Your task to perform on an android device: Open accessibility settings Image 0: 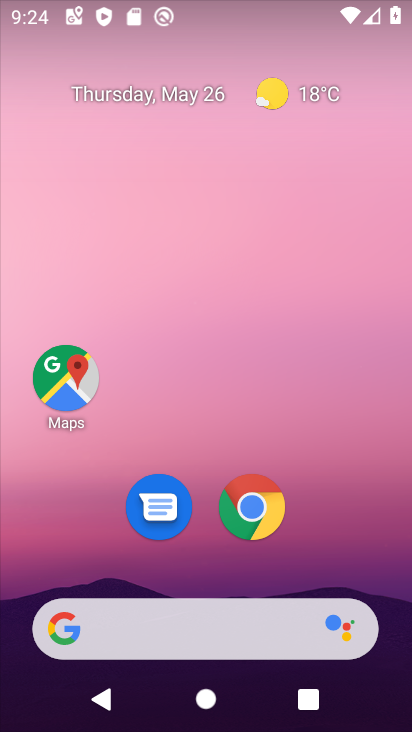
Step 0: press home button
Your task to perform on an android device: Open accessibility settings Image 1: 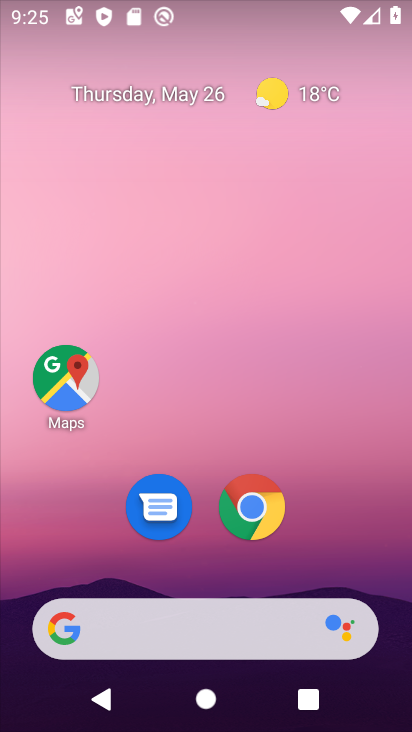
Step 1: drag from (262, 658) to (196, 164)
Your task to perform on an android device: Open accessibility settings Image 2: 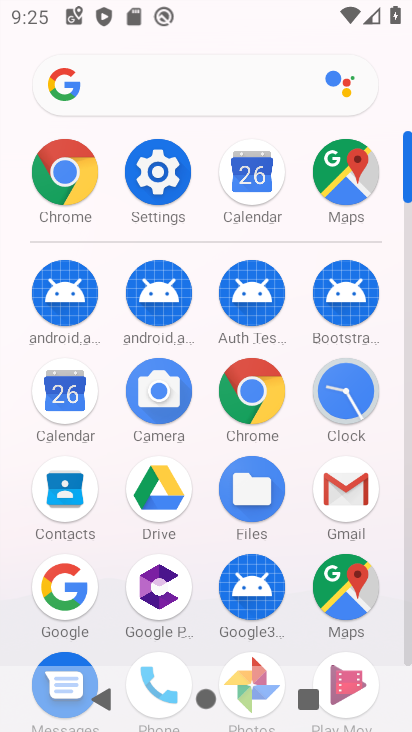
Step 2: click (139, 163)
Your task to perform on an android device: Open accessibility settings Image 3: 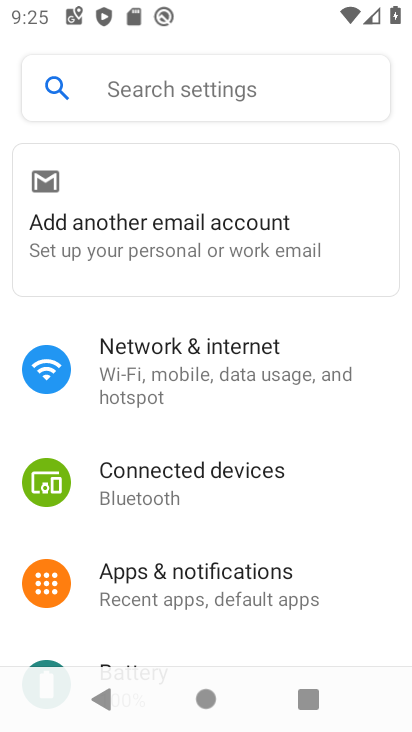
Step 3: click (144, 88)
Your task to perform on an android device: Open accessibility settings Image 4: 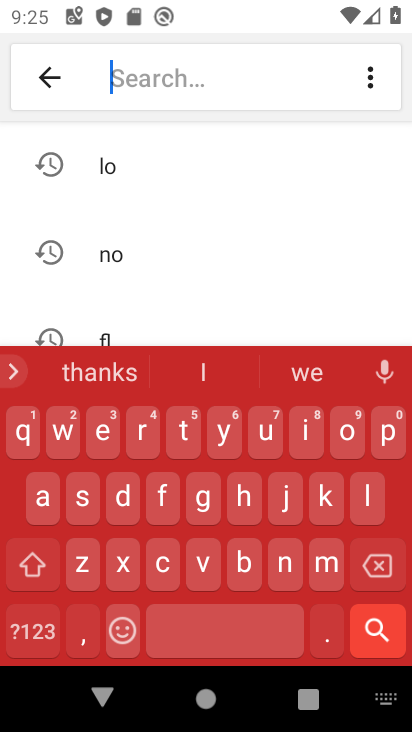
Step 4: click (26, 489)
Your task to perform on an android device: Open accessibility settings Image 5: 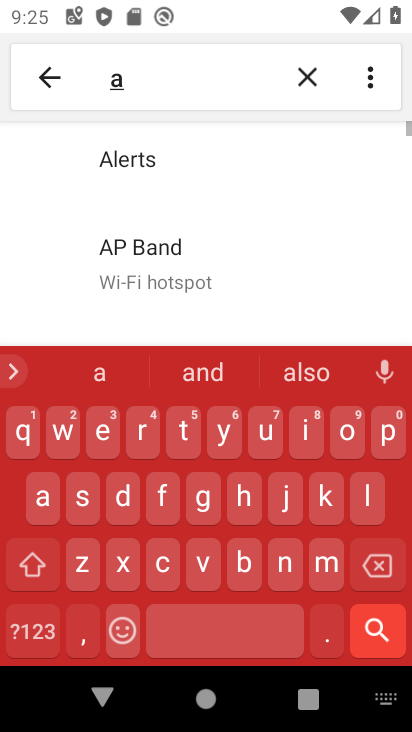
Step 5: click (157, 566)
Your task to perform on an android device: Open accessibility settings Image 6: 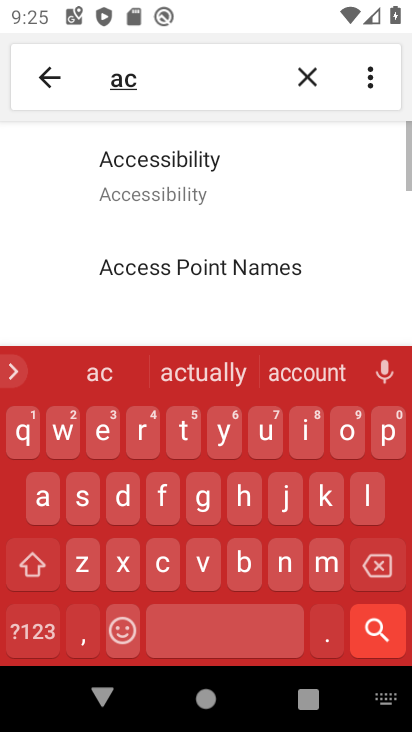
Step 6: click (180, 181)
Your task to perform on an android device: Open accessibility settings Image 7: 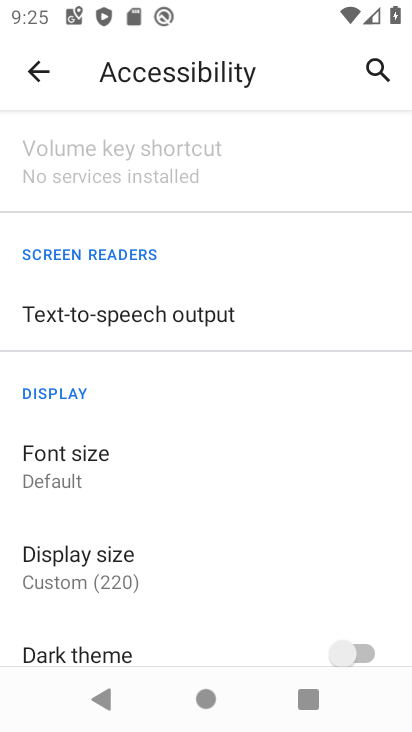
Step 7: task complete